Your task to perform on an android device: Search for "usb-c to usb-b" on walmart.com, select the first entry, and add it to the cart. Image 0: 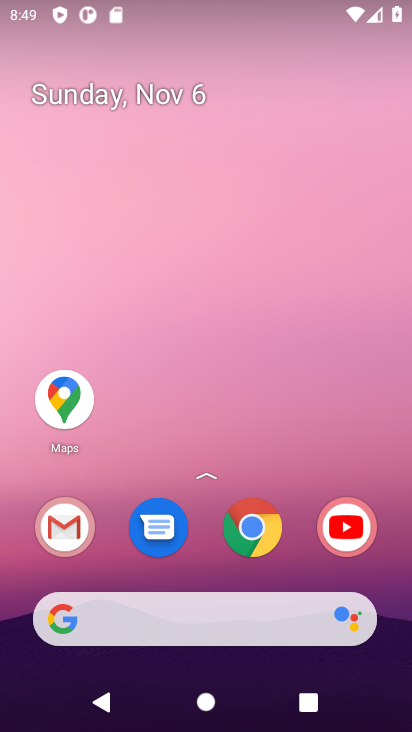
Step 0: click (247, 535)
Your task to perform on an android device: Search for "usb-c to usb-b" on walmart.com, select the first entry, and add it to the cart. Image 1: 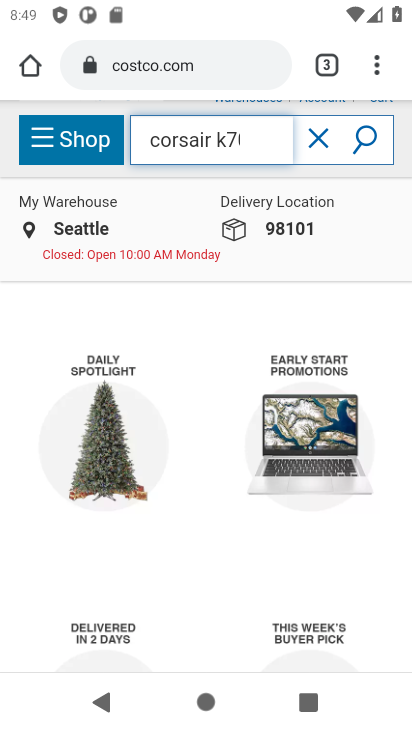
Step 1: click (324, 74)
Your task to perform on an android device: Search for "usb-c to usb-b" on walmart.com, select the first entry, and add it to the cart. Image 2: 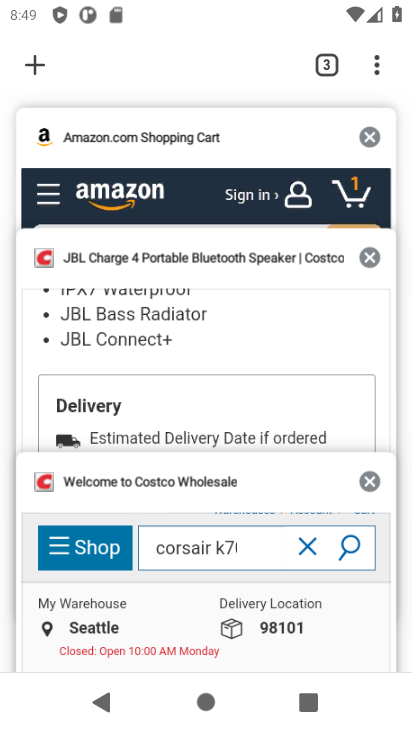
Step 2: click (22, 67)
Your task to perform on an android device: Search for "usb-c to usb-b" on walmart.com, select the first entry, and add it to the cart. Image 3: 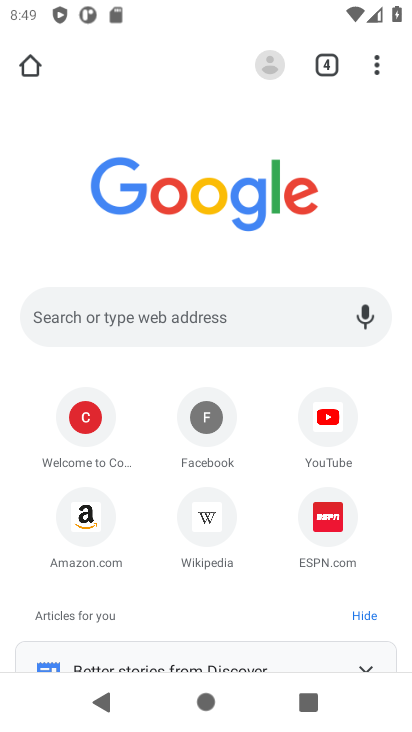
Step 3: click (140, 312)
Your task to perform on an android device: Search for "usb-c to usb-b" on walmart.com, select the first entry, and add it to the cart. Image 4: 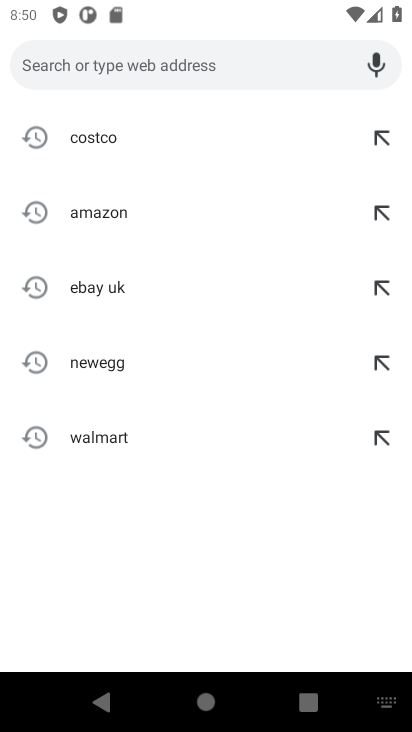
Step 4: type "walmart"
Your task to perform on an android device: Search for "usb-c to usb-b" on walmart.com, select the first entry, and add it to the cart. Image 5: 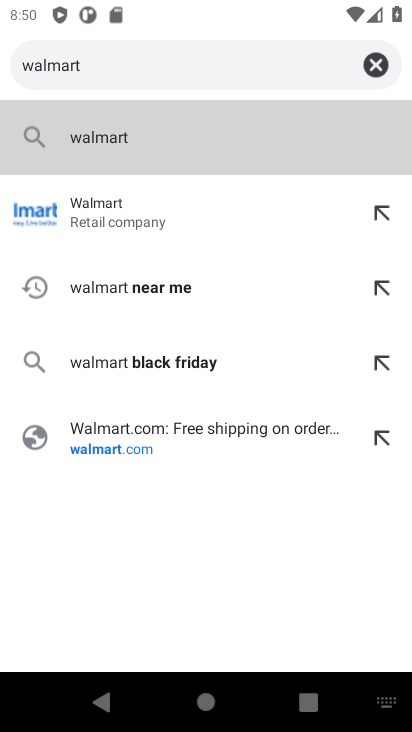
Step 5: click (153, 212)
Your task to perform on an android device: Search for "usb-c to usb-b" on walmart.com, select the first entry, and add it to the cart. Image 6: 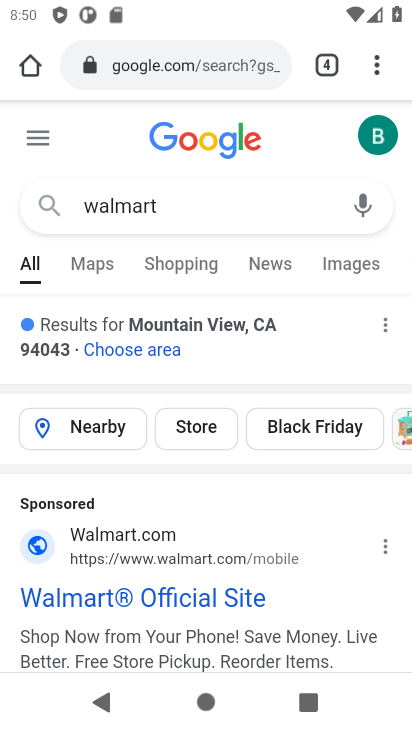
Step 6: click (171, 595)
Your task to perform on an android device: Search for "usb-c to usb-b" on walmart.com, select the first entry, and add it to the cart. Image 7: 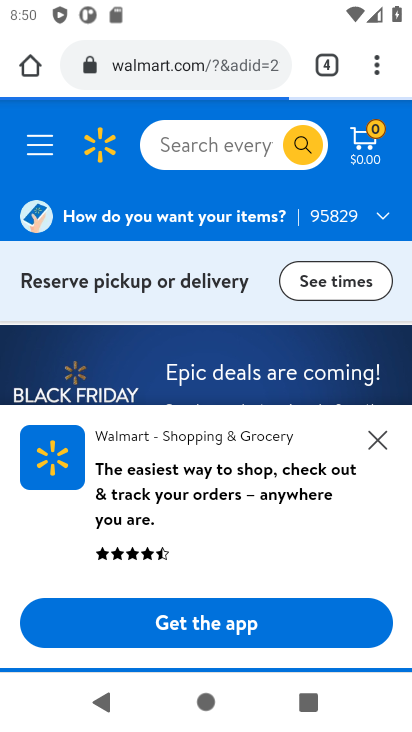
Step 7: click (379, 441)
Your task to perform on an android device: Search for "usb-c to usb-b" on walmart.com, select the first entry, and add it to the cart. Image 8: 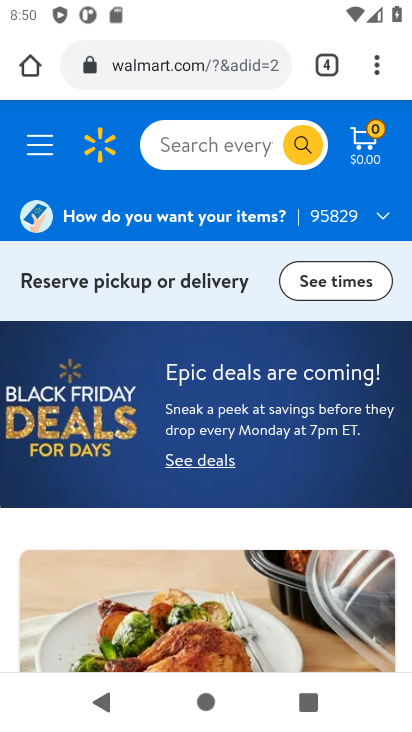
Step 8: drag from (211, 611) to (263, 212)
Your task to perform on an android device: Search for "usb-c to usb-b" on walmart.com, select the first entry, and add it to the cart. Image 9: 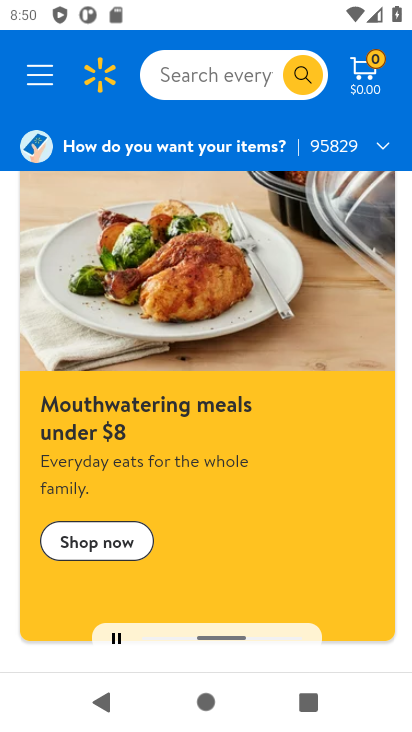
Step 9: click (211, 65)
Your task to perform on an android device: Search for "usb-c to usb-b" on walmart.com, select the first entry, and add it to the cart. Image 10: 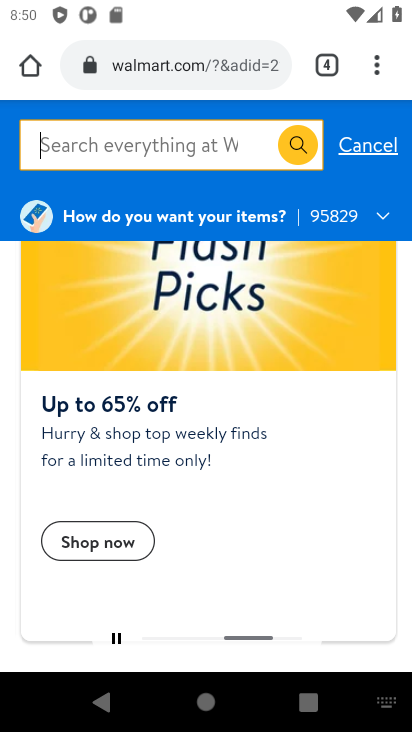
Step 10: click (139, 141)
Your task to perform on an android device: Search for "usb-c to usb-b" on walmart.com, select the first entry, and add it to the cart. Image 11: 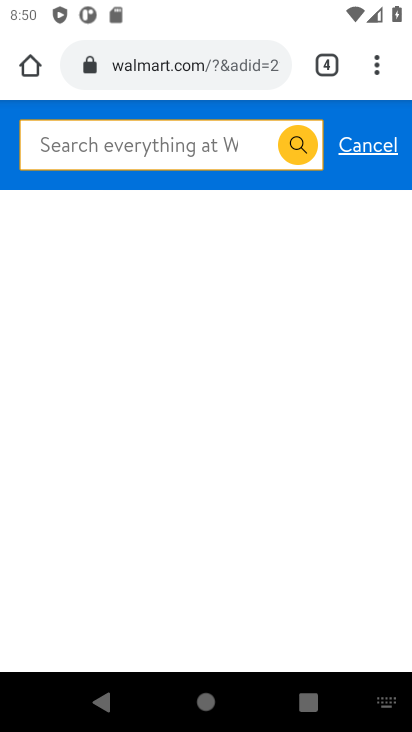
Step 11: type "usb-c to usb-b"
Your task to perform on an android device: Search for "usb-c to usb-b" on walmart.com, select the first entry, and add it to the cart. Image 12: 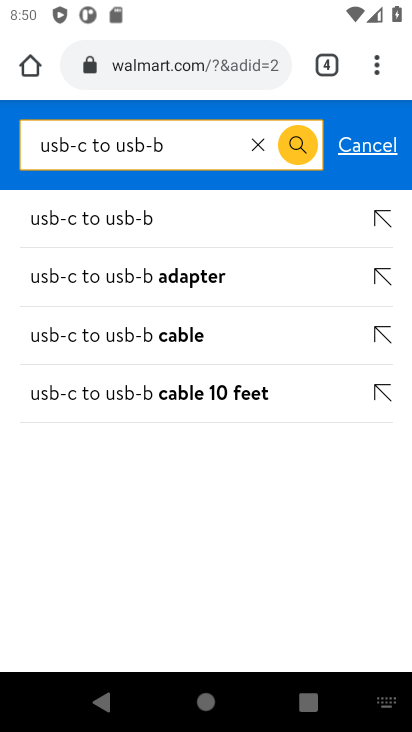
Step 12: click (121, 218)
Your task to perform on an android device: Search for "usb-c to usb-b" on walmart.com, select the first entry, and add it to the cart. Image 13: 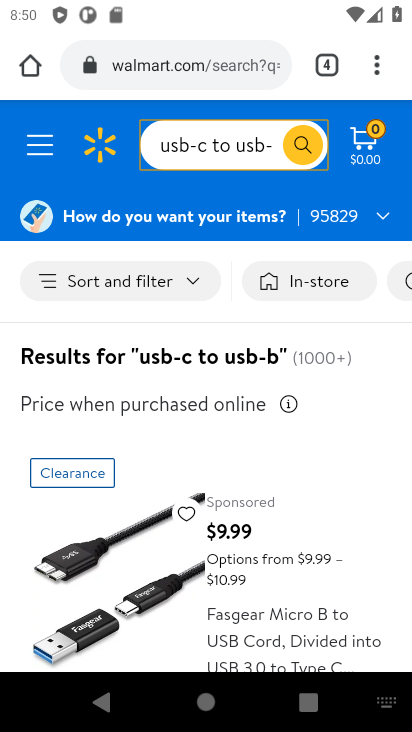
Step 13: drag from (197, 607) to (264, 368)
Your task to perform on an android device: Search for "usb-c to usb-b" on walmart.com, select the first entry, and add it to the cart. Image 14: 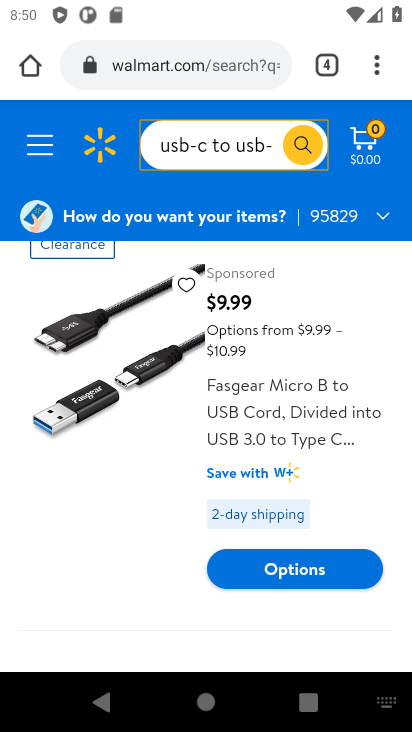
Step 14: click (240, 354)
Your task to perform on an android device: Search for "usb-c to usb-b" on walmart.com, select the first entry, and add it to the cart. Image 15: 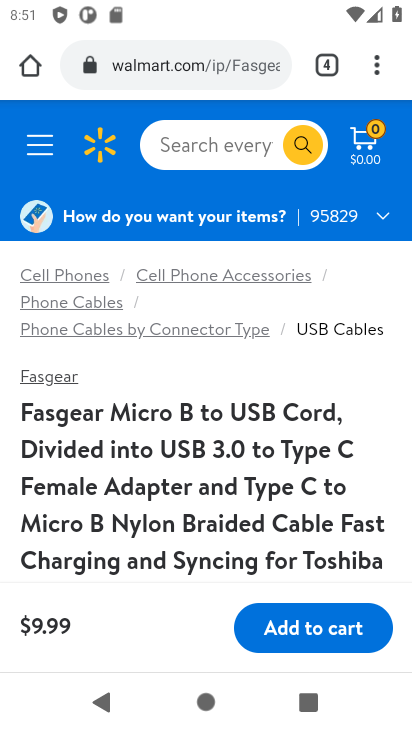
Step 15: click (338, 636)
Your task to perform on an android device: Search for "usb-c to usb-b" on walmart.com, select the first entry, and add it to the cart. Image 16: 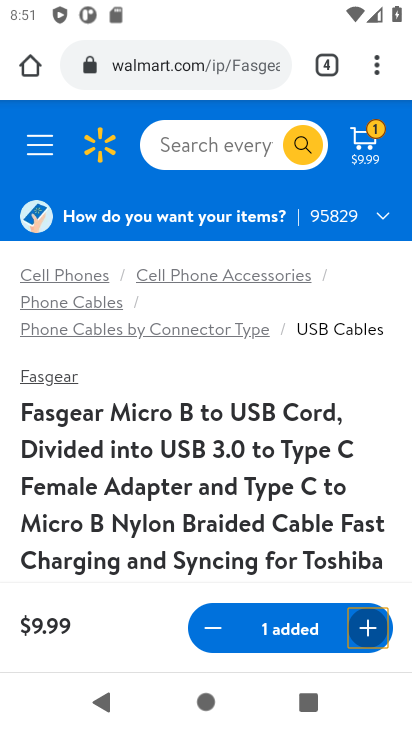
Step 16: task complete